Your task to perform on an android device: install app "Move to iOS" Image 0: 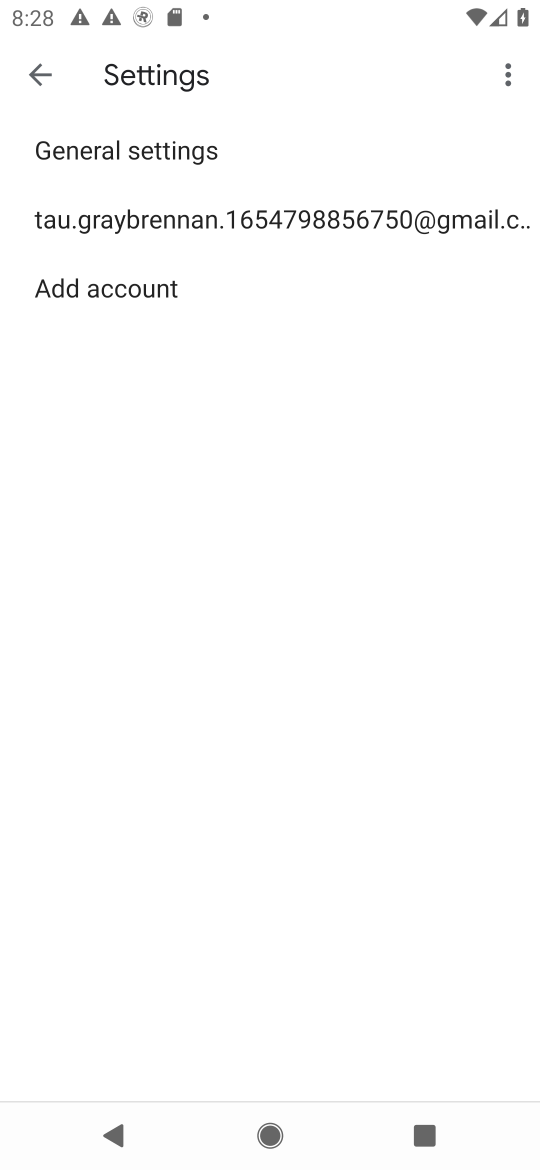
Step 0: press home button
Your task to perform on an android device: install app "Move to iOS" Image 1: 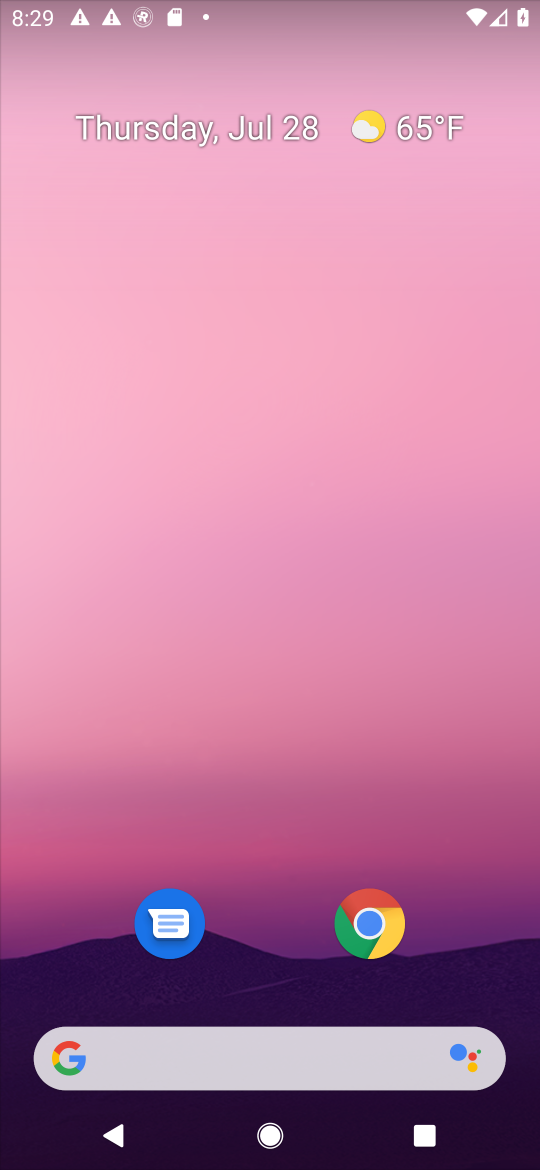
Step 1: drag from (436, 778) to (394, 189)
Your task to perform on an android device: install app "Move to iOS" Image 2: 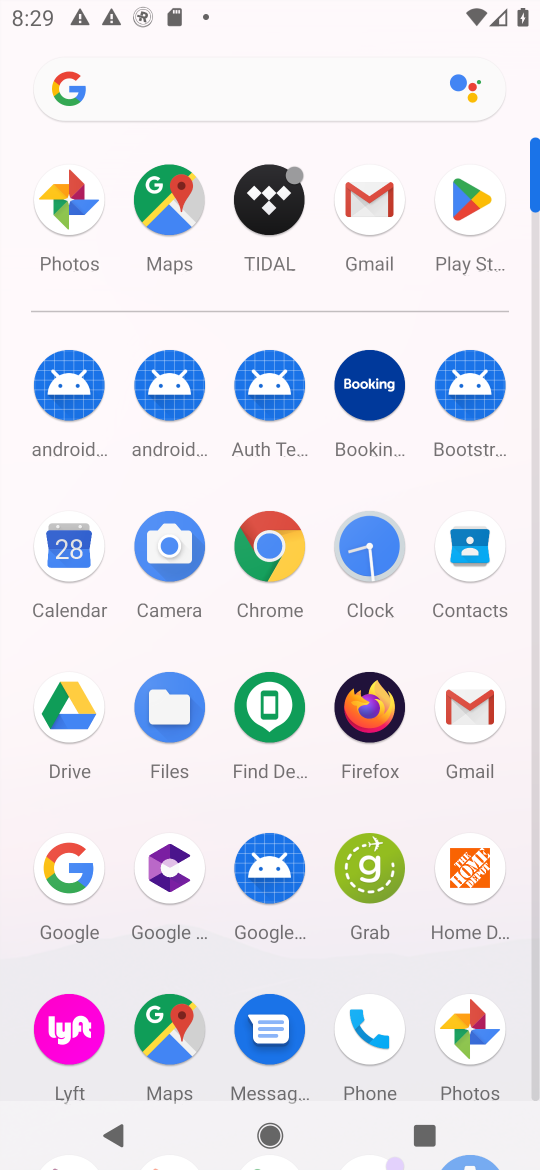
Step 2: click (485, 181)
Your task to perform on an android device: install app "Move to iOS" Image 3: 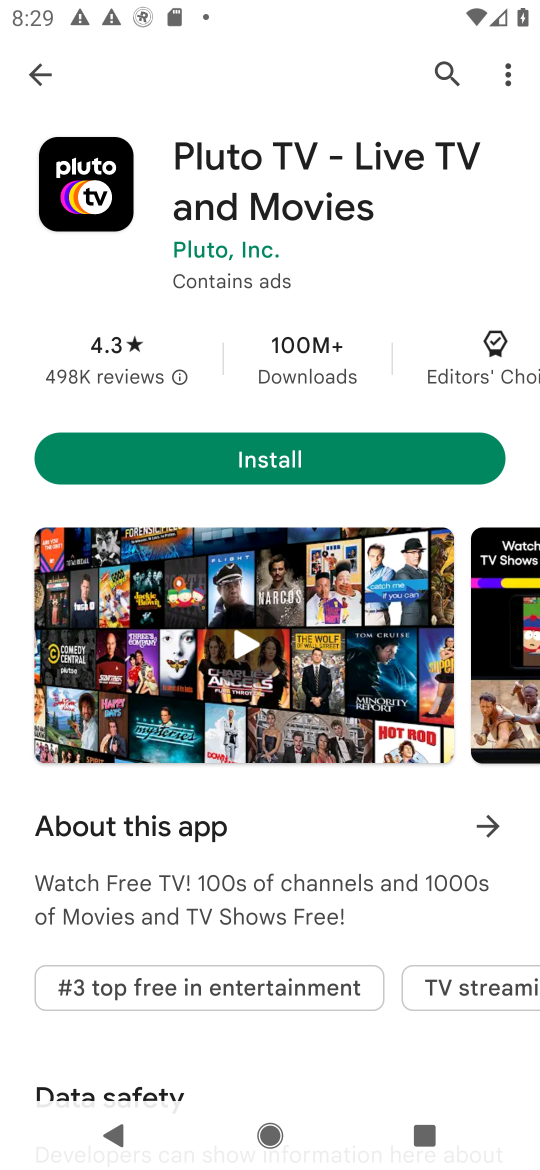
Step 3: click (443, 57)
Your task to perform on an android device: install app "Move to iOS" Image 4: 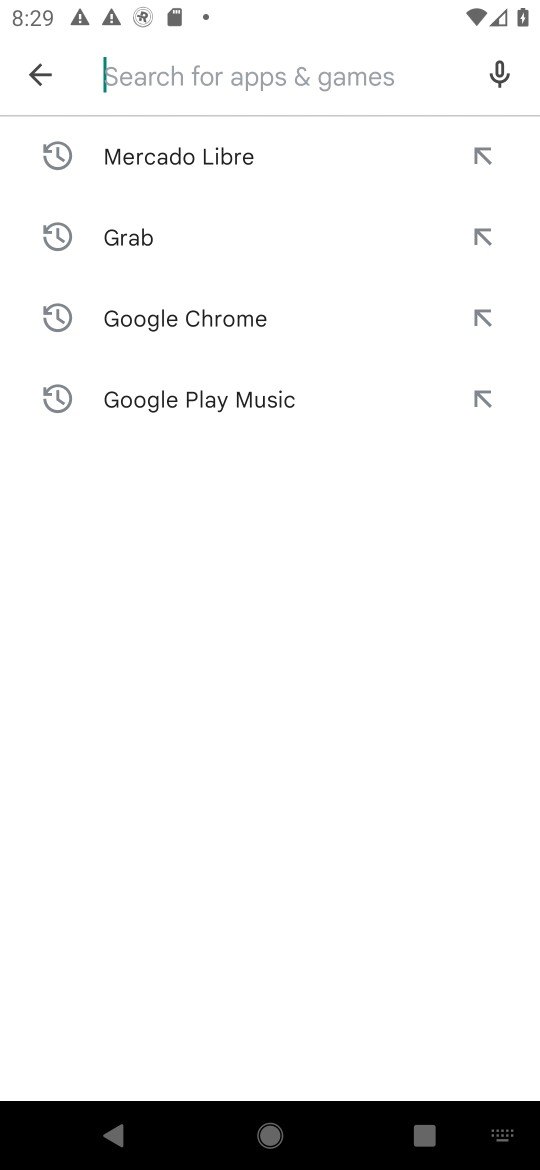
Step 4: type "Move to iiOS"
Your task to perform on an android device: install app "Move to iOS" Image 5: 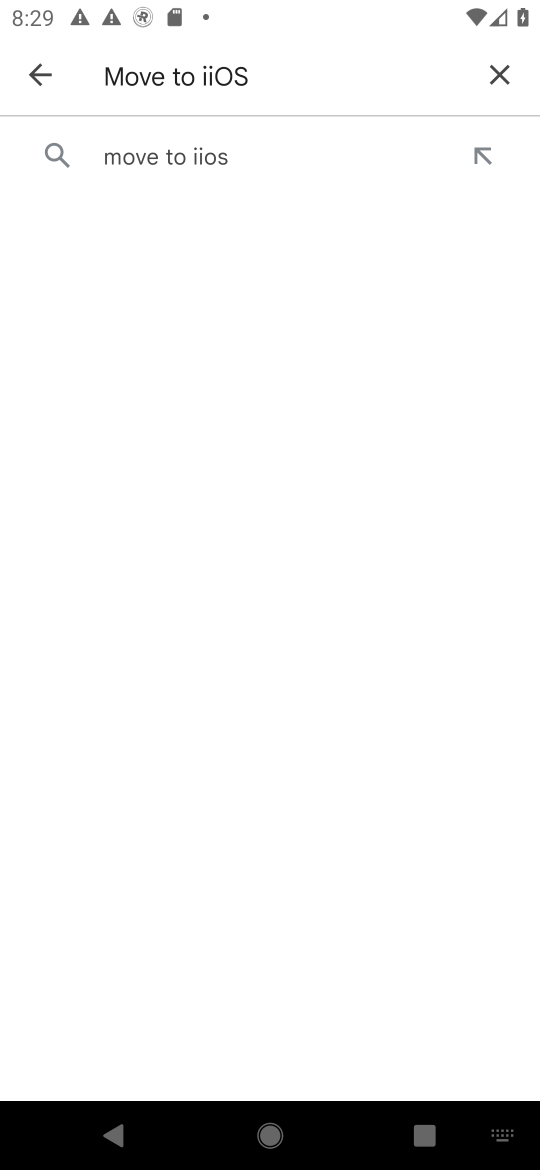
Step 5: click (282, 158)
Your task to perform on an android device: install app "Move to iOS" Image 6: 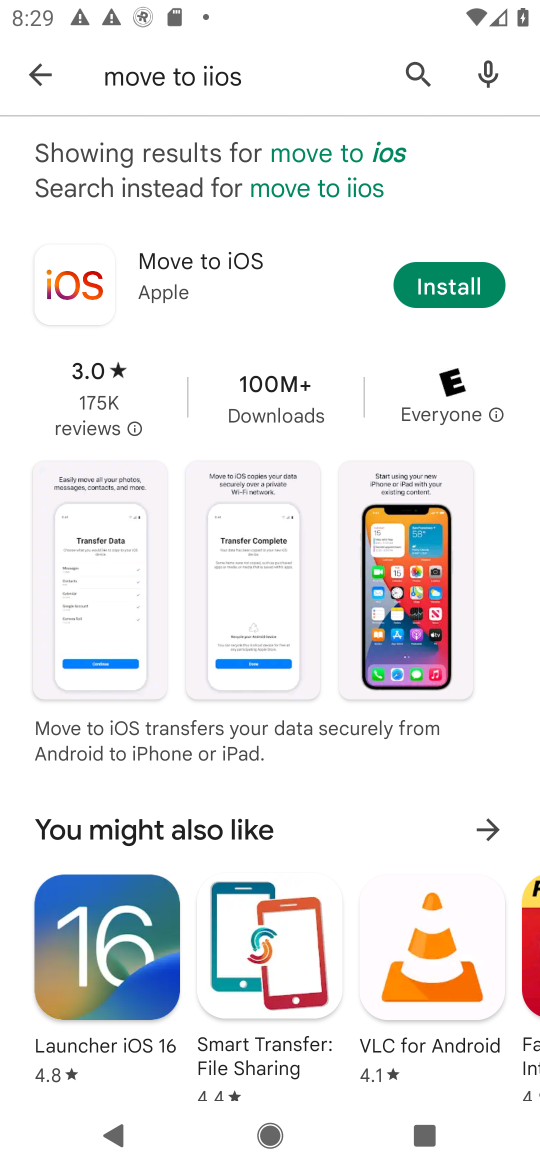
Step 6: click (429, 280)
Your task to perform on an android device: install app "Move to iOS" Image 7: 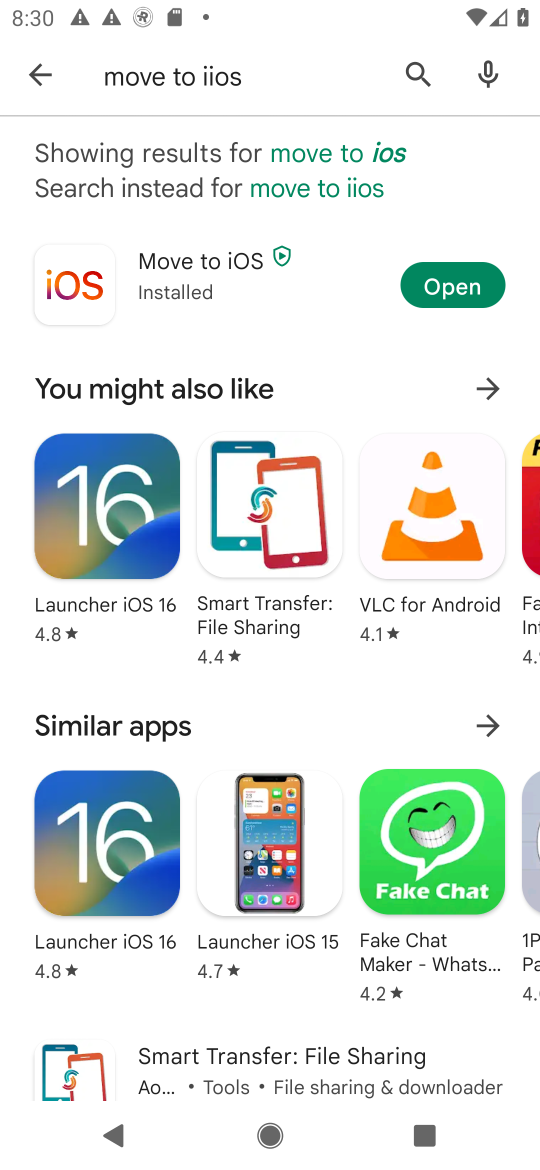
Step 7: task complete